Your task to perform on an android device: move an email to a new category in the gmail app Image 0: 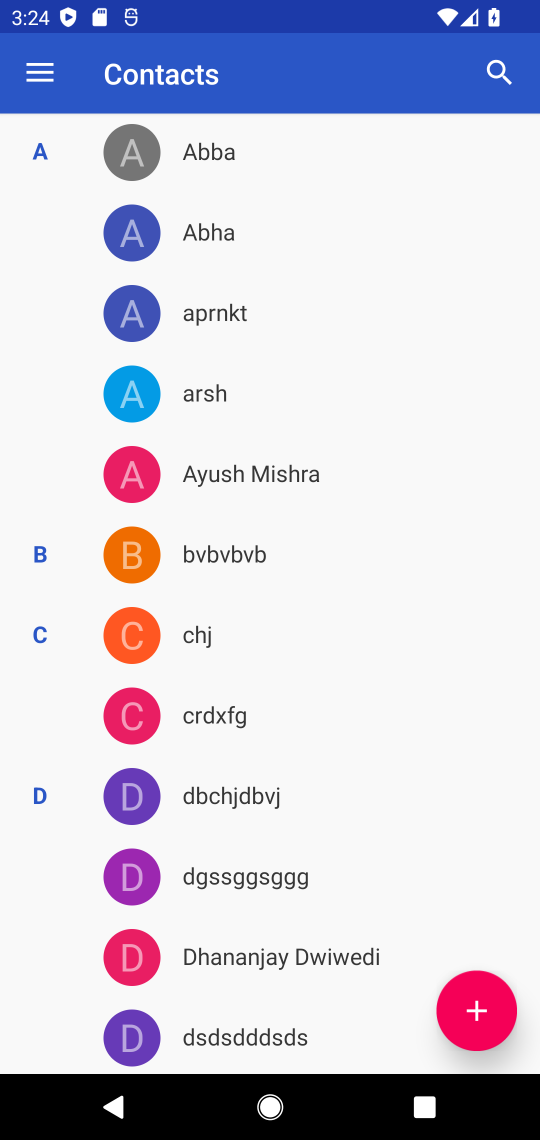
Step 0: press home button
Your task to perform on an android device: move an email to a new category in the gmail app Image 1: 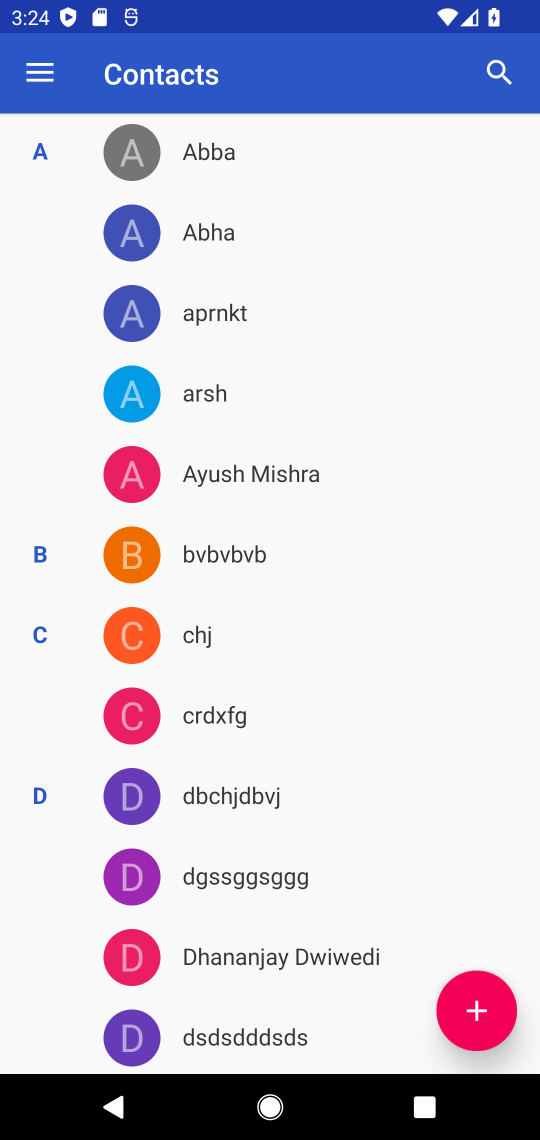
Step 1: press home button
Your task to perform on an android device: move an email to a new category in the gmail app Image 2: 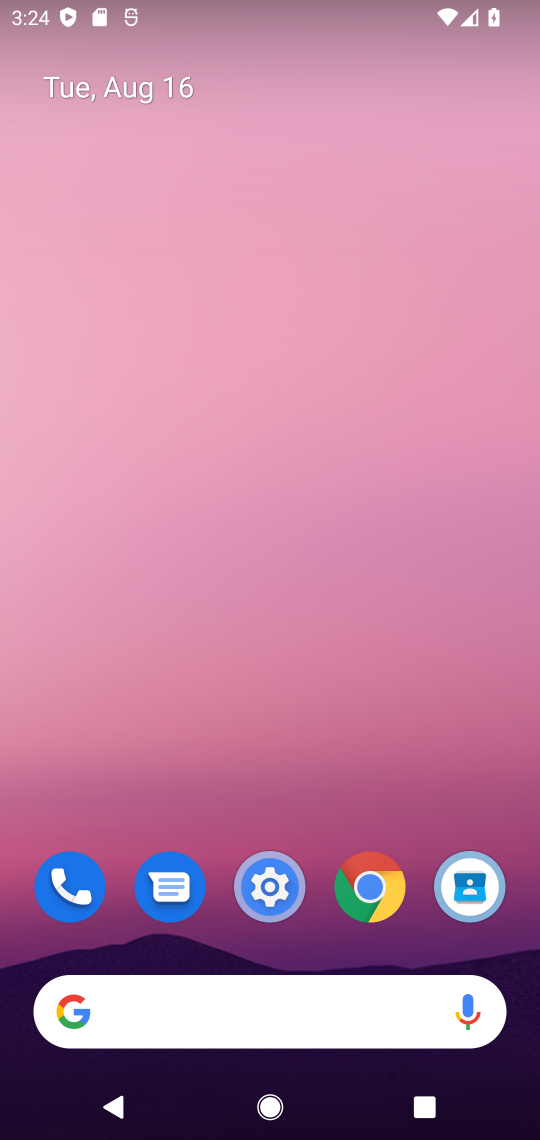
Step 2: drag from (254, 589) to (256, 76)
Your task to perform on an android device: move an email to a new category in the gmail app Image 3: 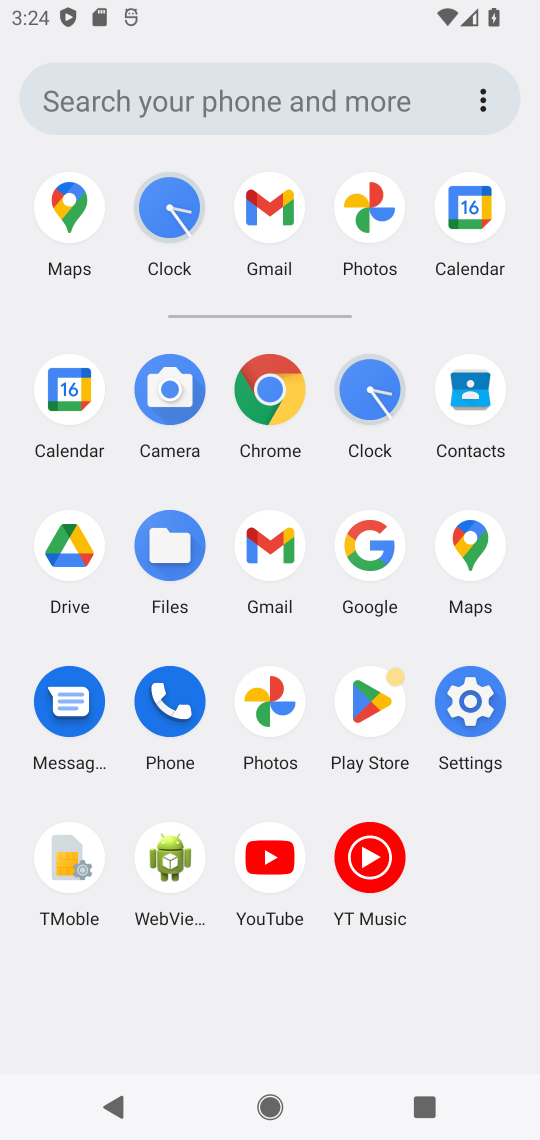
Step 3: click (260, 537)
Your task to perform on an android device: move an email to a new category in the gmail app Image 4: 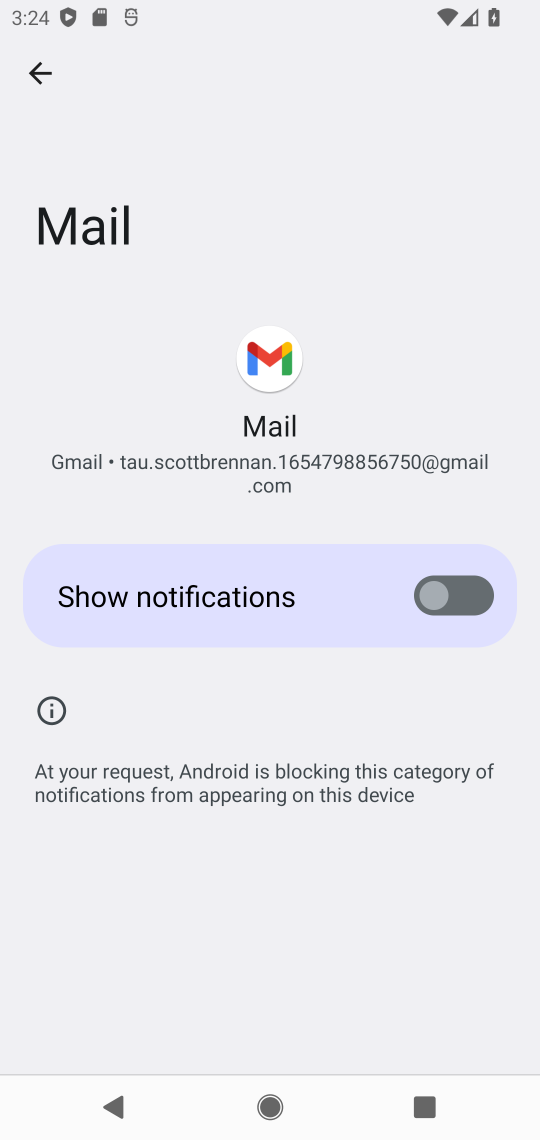
Step 4: press back button
Your task to perform on an android device: move an email to a new category in the gmail app Image 5: 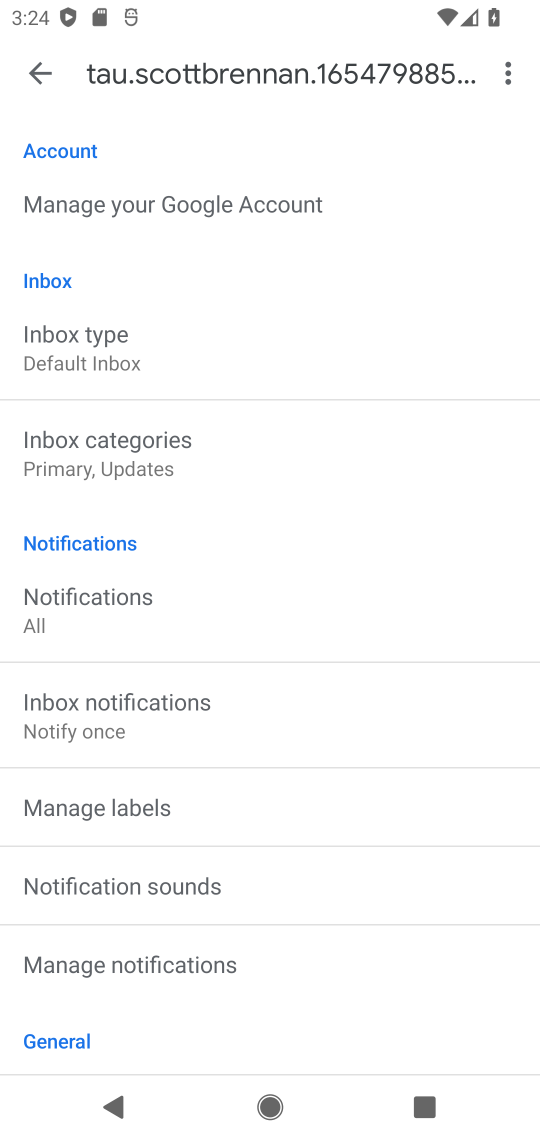
Step 5: press back button
Your task to perform on an android device: move an email to a new category in the gmail app Image 6: 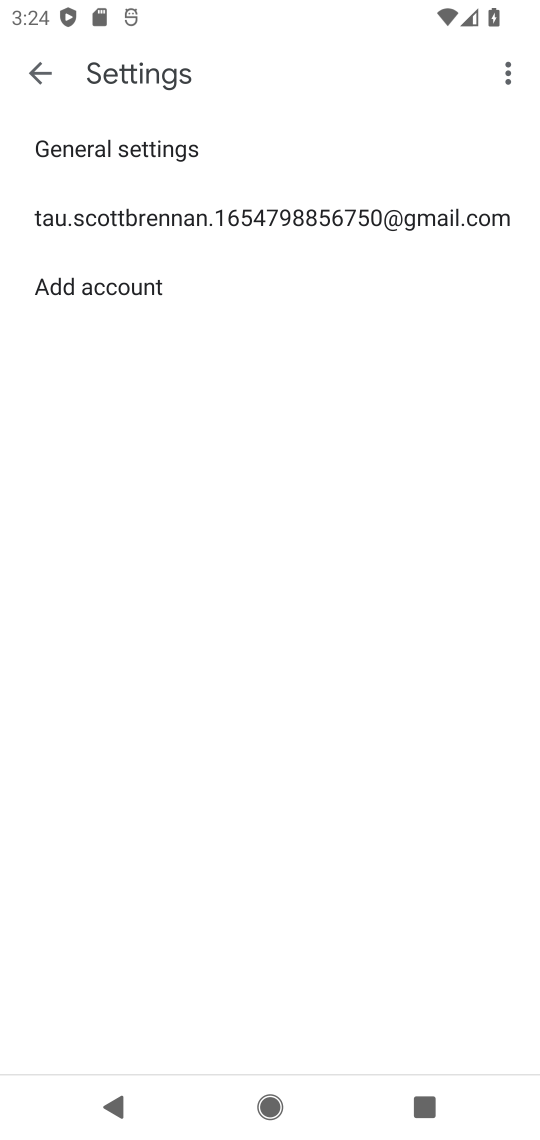
Step 6: press back button
Your task to perform on an android device: move an email to a new category in the gmail app Image 7: 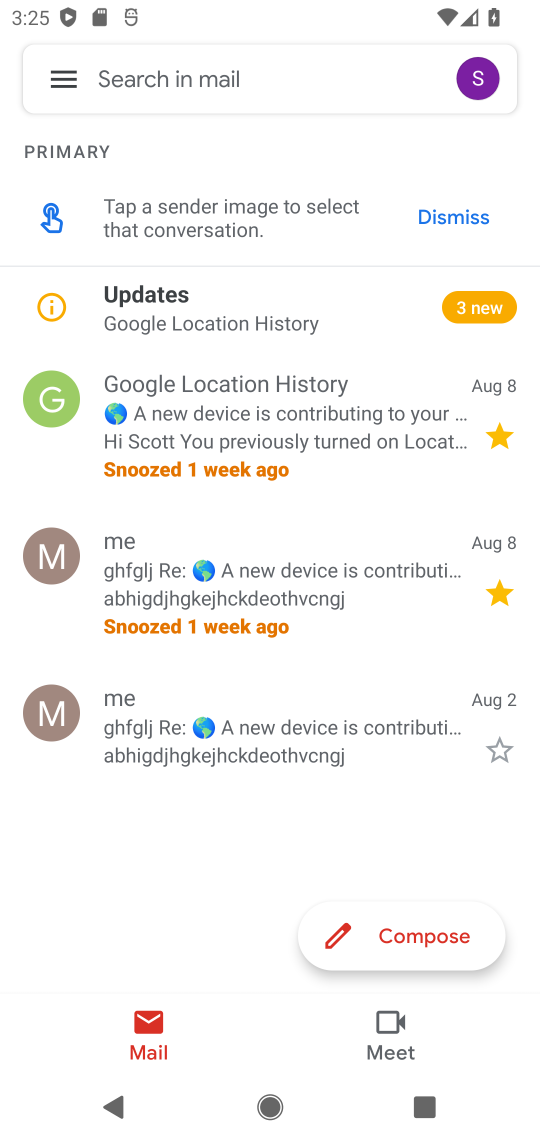
Step 7: click (55, 64)
Your task to perform on an android device: move an email to a new category in the gmail app Image 8: 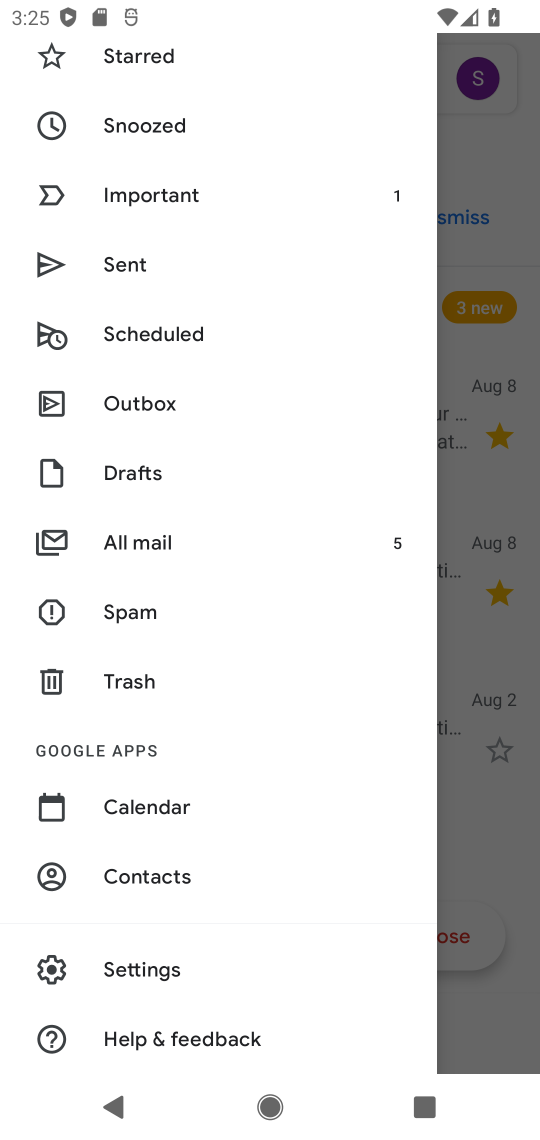
Step 8: click (168, 973)
Your task to perform on an android device: move an email to a new category in the gmail app Image 9: 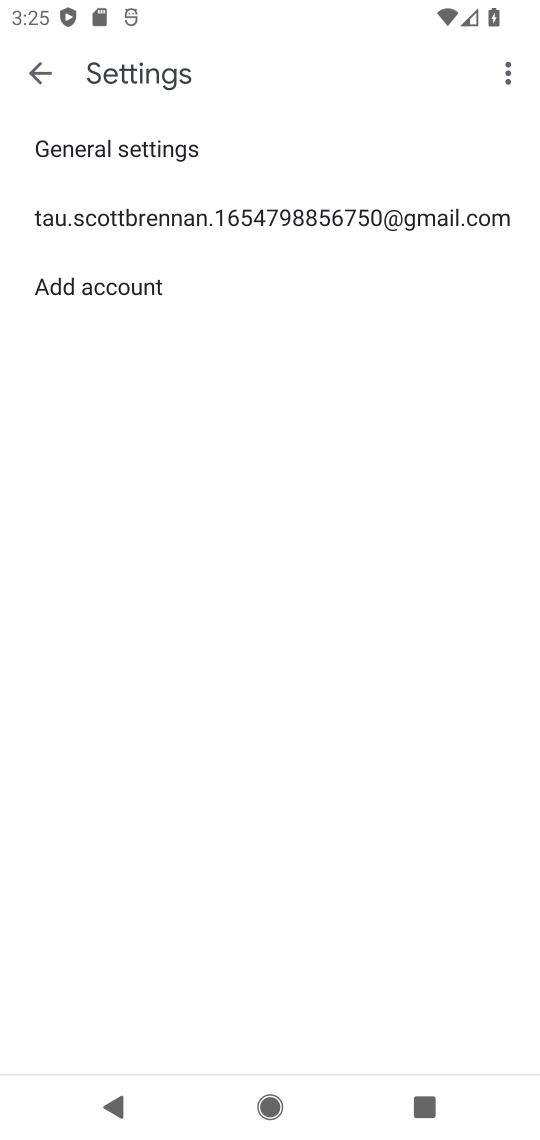
Step 9: click (281, 202)
Your task to perform on an android device: move an email to a new category in the gmail app Image 10: 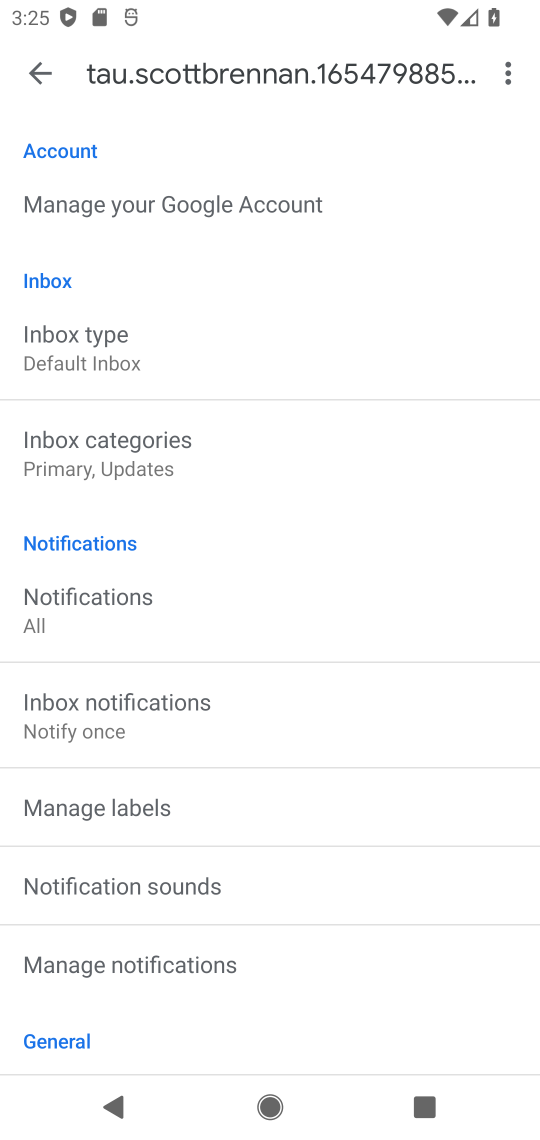
Step 10: click (131, 804)
Your task to perform on an android device: move an email to a new category in the gmail app Image 11: 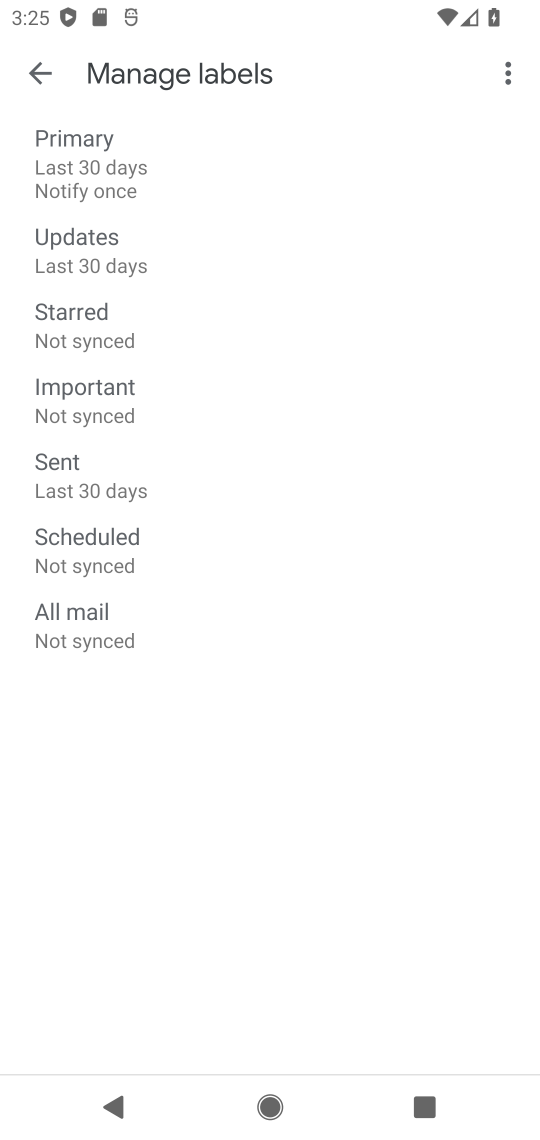
Step 11: click (499, 63)
Your task to perform on an android device: move an email to a new category in the gmail app Image 12: 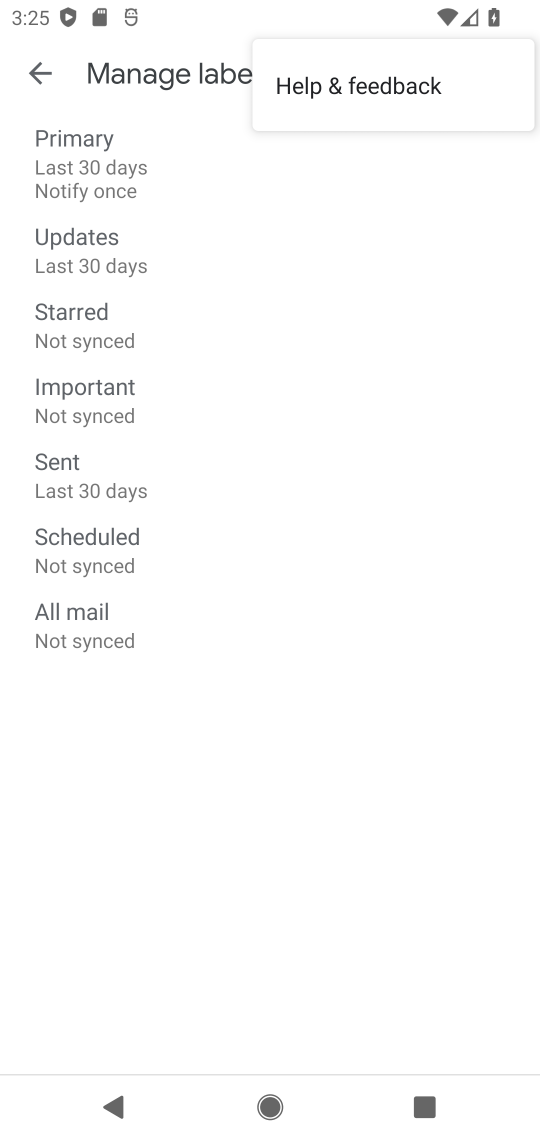
Step 12: task complete